Your task to perform on an android device: Show me popular games on the Play Store Image 0: 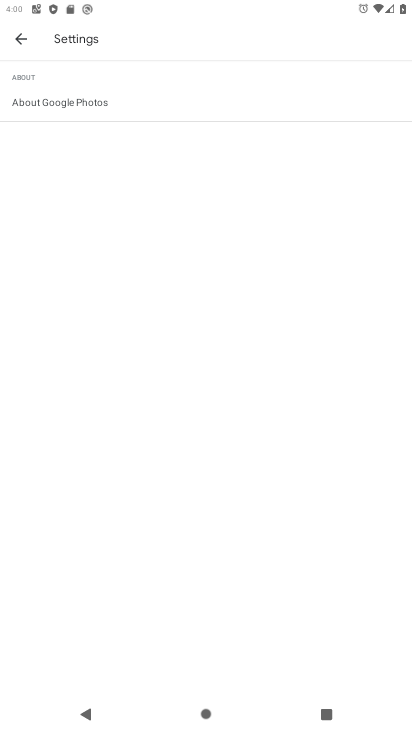
Step 0: press home button
Your task to perform on an android device: Show me popular games on the Play Store Image 1: 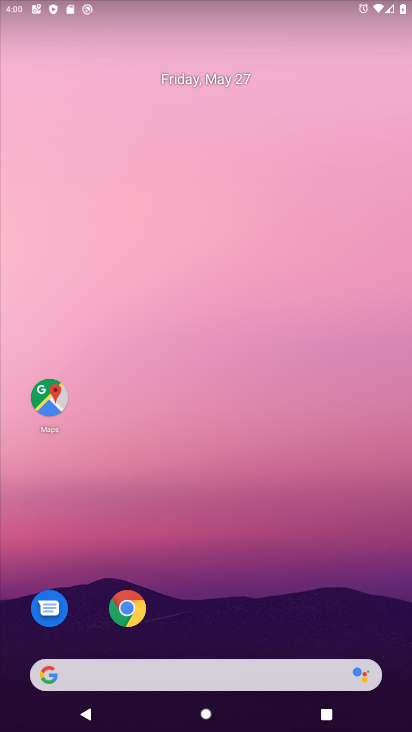
Step 1: drag from (194, 659) to (226, 271)
Your task to perform on an android device: Show me popular games on the Play Store Image 2: 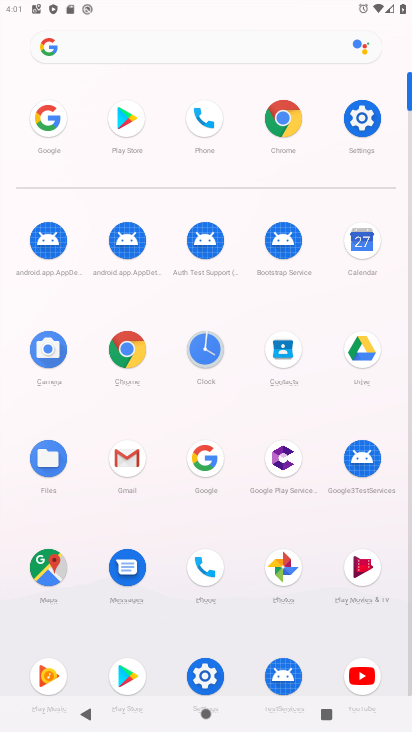
Step 2: click (131, 678)
Your task to perform on an android device: Show me popular games on the Play Store Image 3: 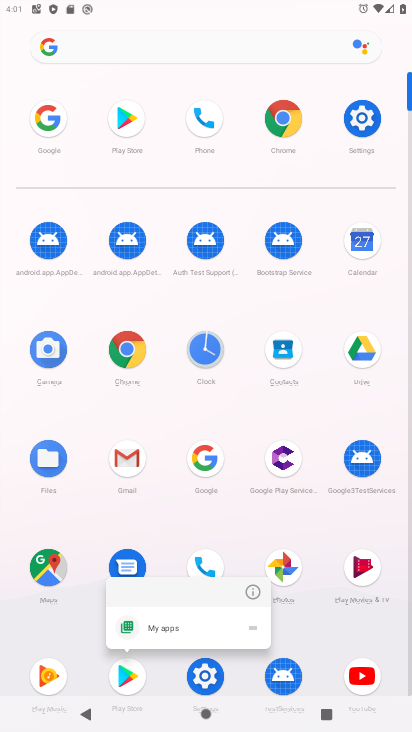
Step 3: click (125, 682)
Your task to perform on an android device: Show me popular games on the Play Store Image 4: 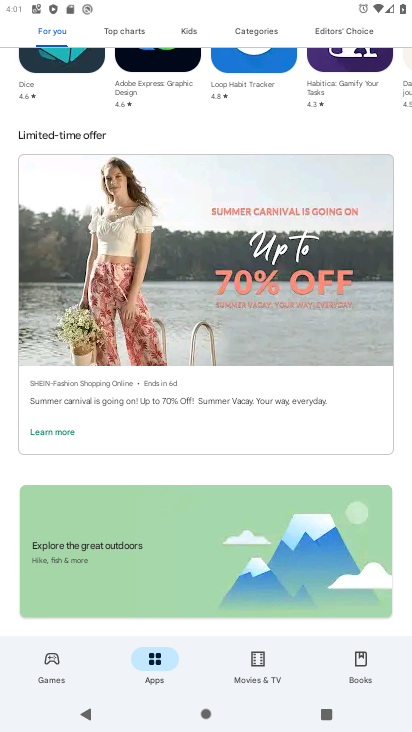
Step 4: drag from (142, 85) to (184, 529)
Your task to perform on an android device: Show me popular games on the Play Store Image 5: 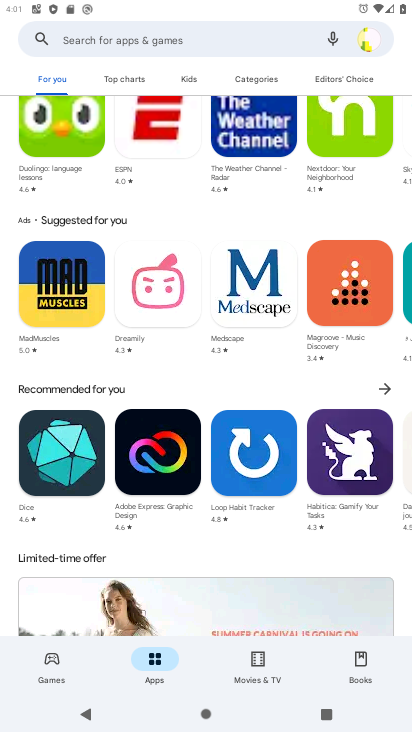
Step 5: click (151, 39)
Your task to perform on an android device: Show me popular games on the Play Store Image 6: 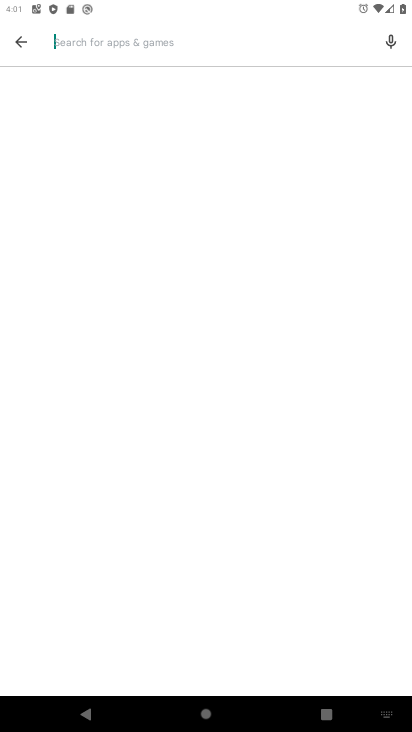
Step 6: type "popular games"
Your task to perform on an android device: Show me popular games on the Play Store Image 7: 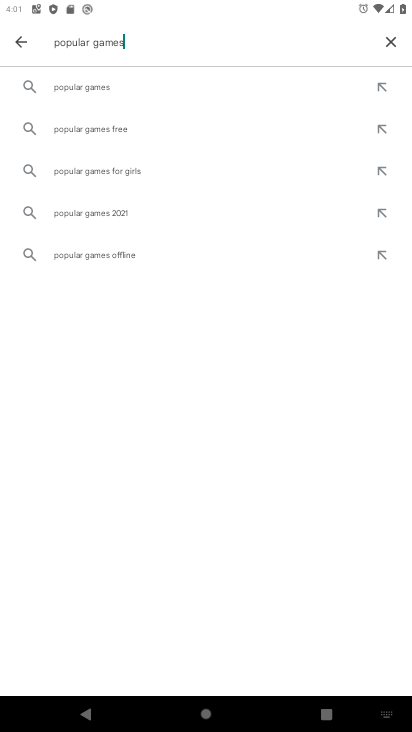
Step 7: click (112, 78)
Your task to perform on an android device: Show me popular games on the Play Store Image 8: 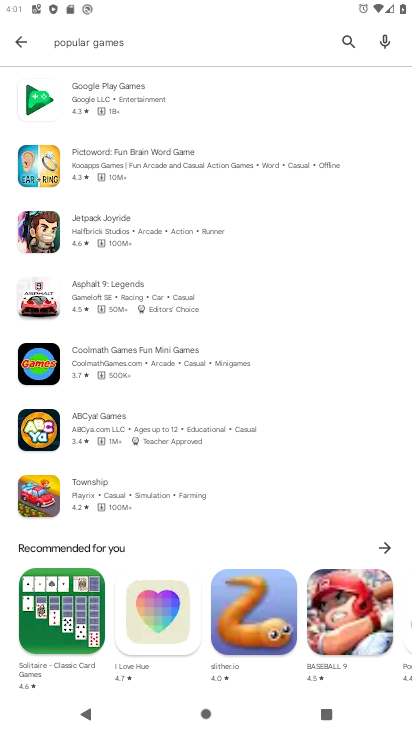
Step 8: task complete